Your task to perform on an android device: Open sound settings Image 0: 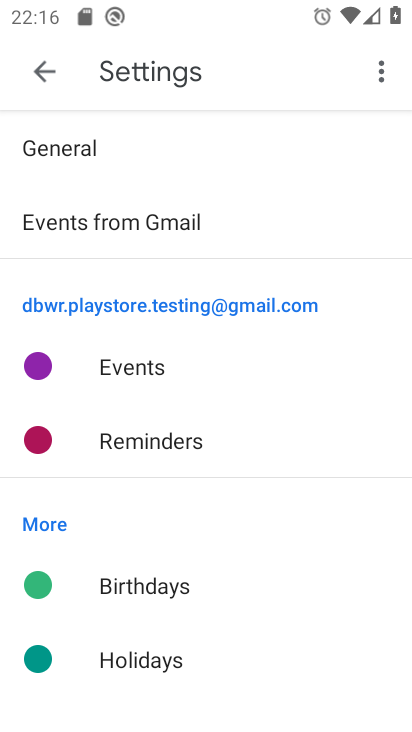
Step 0: press home button
Your task to perform on an android device: Open sound settings Image 1: 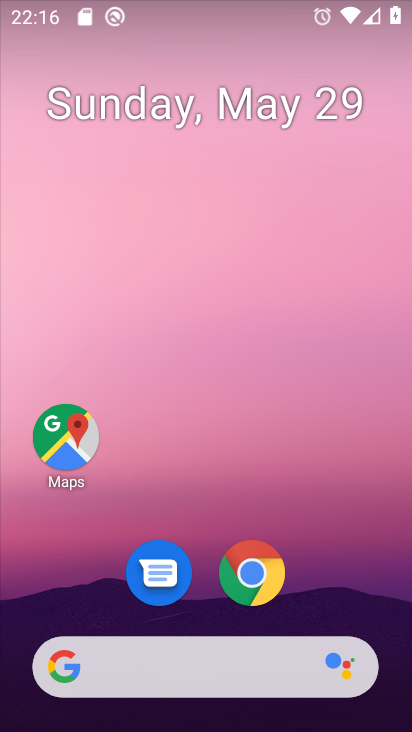
Step 1: drag from (223, 476) to (222, 4)
Your task to perform on an android device: Open sound settings Image 2: 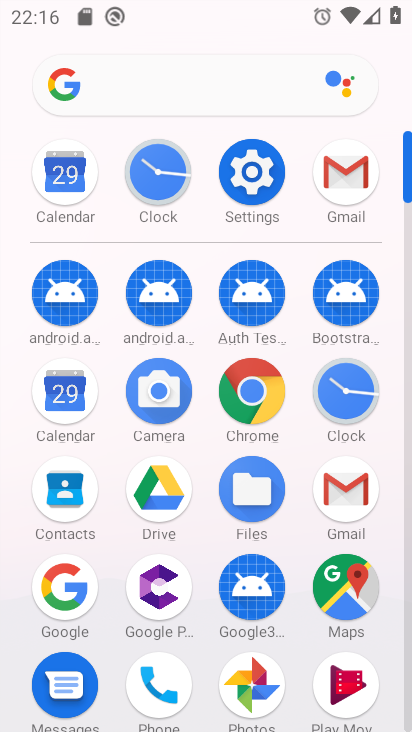
Step 2: click (246, 175)
Your task to perform on an android device: Open sound settings Image 3: 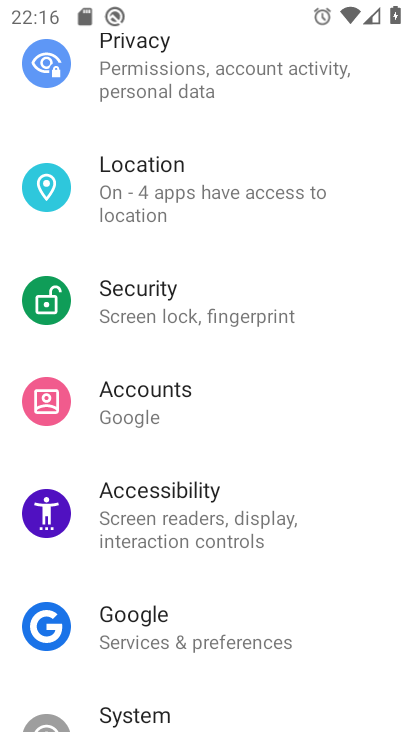
Step 3: drag from (229, 146) to (217, 678)
Your task to perform on an android device: Open sound settings Image 4: 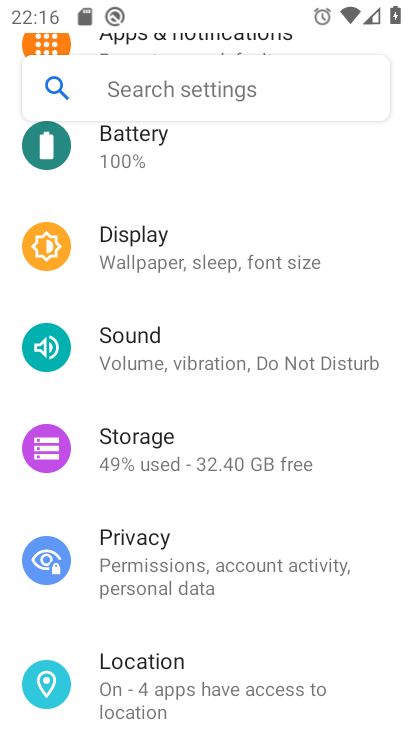
Step 4: click (248, 348)
Your task to perform on an android device: Open sound settings Image 5: 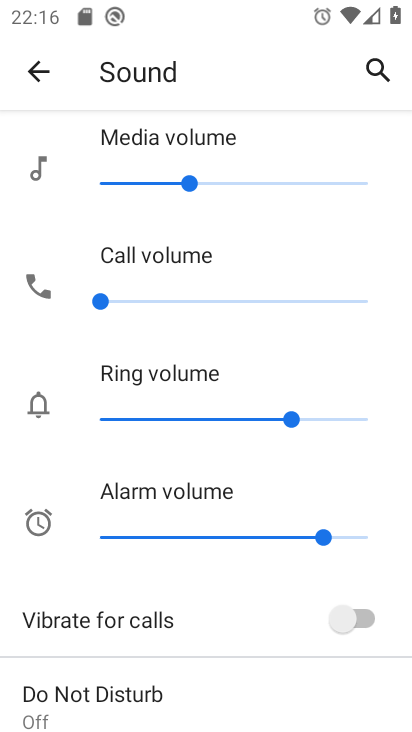
Step 5: task complete